Your task to perform on an android device: see sites visited before in the chrome app Image 0: 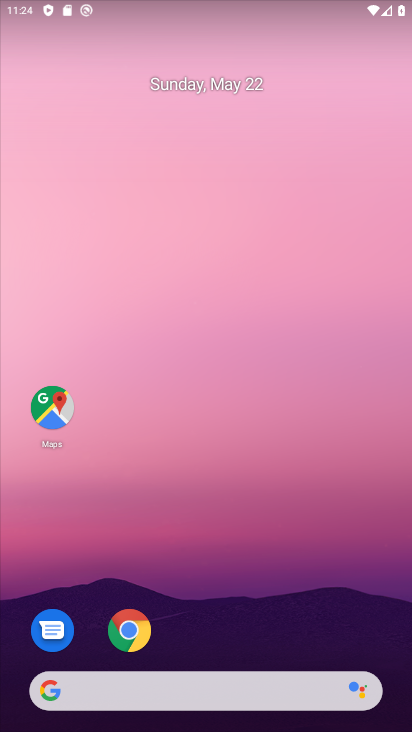
Step 0: press home button
Your task to perform on an android device: see sites visited before in the chrome app Image 1: 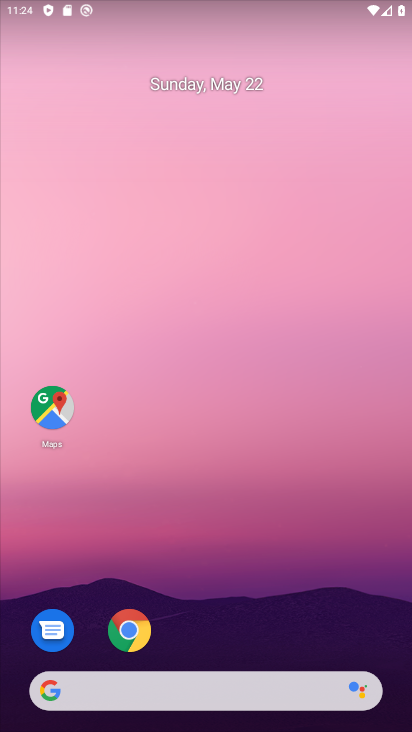
Step 1: click (141, 631)
Your task to perform on an android device: see sites visited before in the chrome app Image 2: 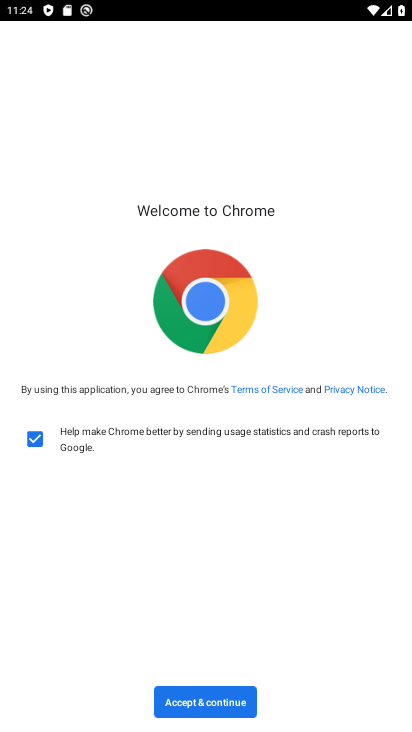
Step 2: click (219, 694)
Your task to perform on an android device: see sites visited before in the chrome app Image 3: 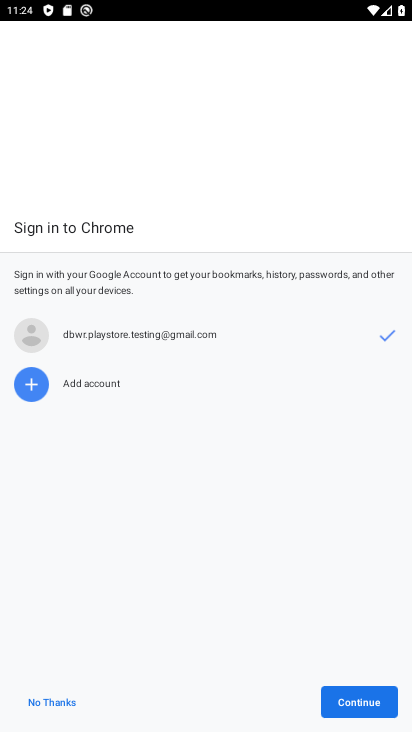
Step 3: click (349, 704)
Your task to perform on an android device: see sites visited before in the chrome app Image 4: 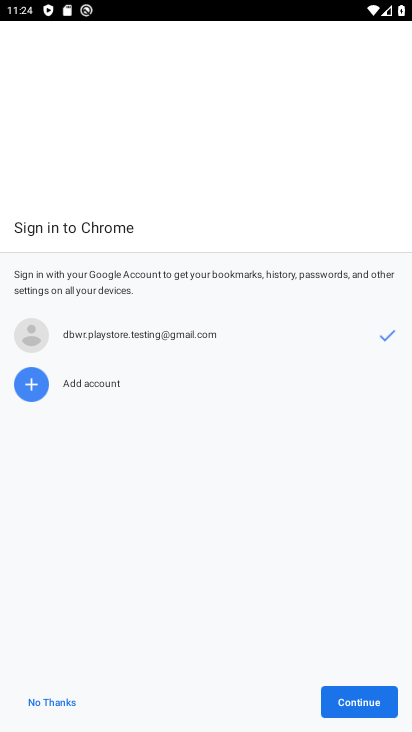
Step 4: click (349, 704)
Your task to perform on an android device: see sites visited before in the chrome app Image 5: 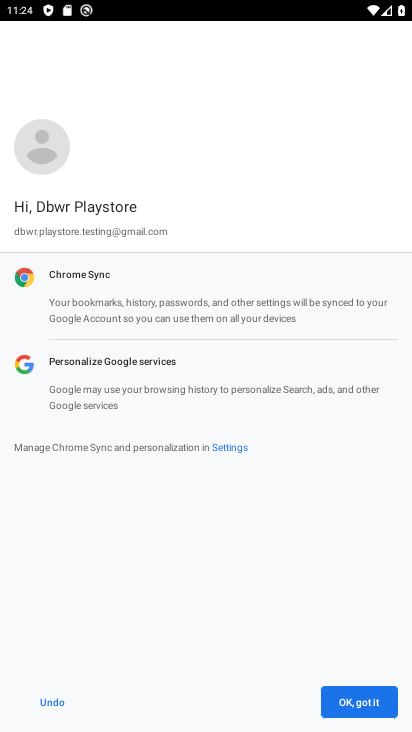
Step 5: click (349, 704)
Your task to perform on an android device: see sites visited before in the chrome app Image 6: 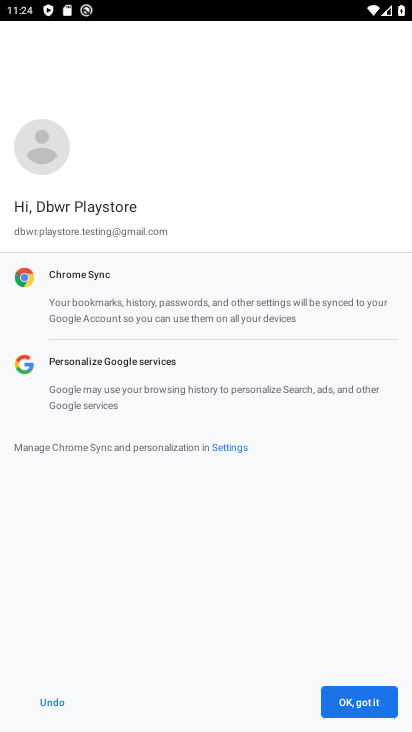
Step 6: click (349, 704)
Your task to perform on an android device: see sites visited before in the chrome app Image 7: 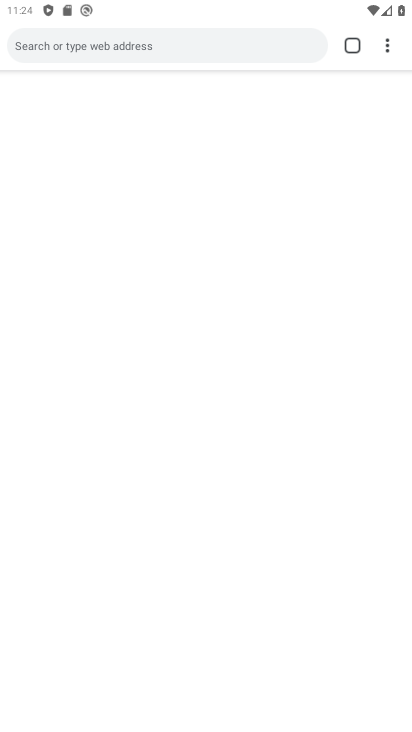
Step 7: click (387, 49)
Your task to perform on an android device: see sites visited before in the chrome app Image 8: 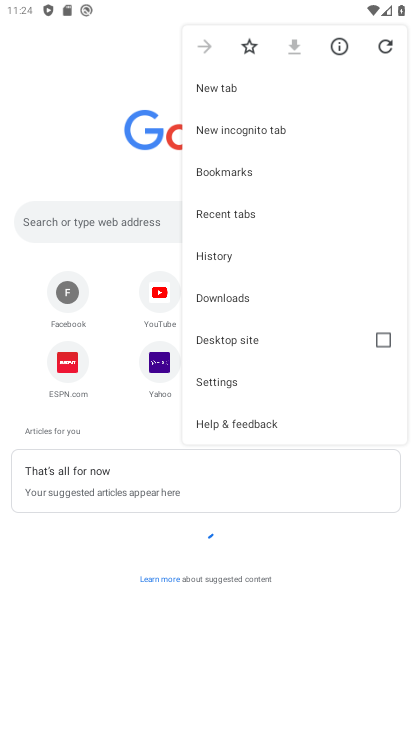
Step 8: click (266, 260)
Your task to perform on an android device: see sites visited before in the chrome app Image 9: 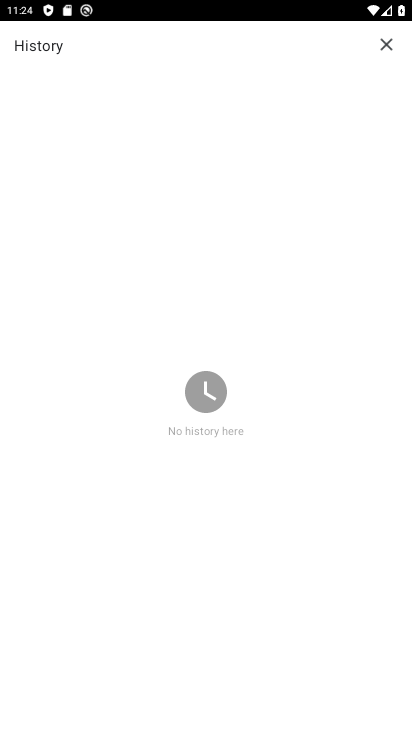
Step 9: task complete